Your task to perform on an android device: change alarm snooze length Image 0: 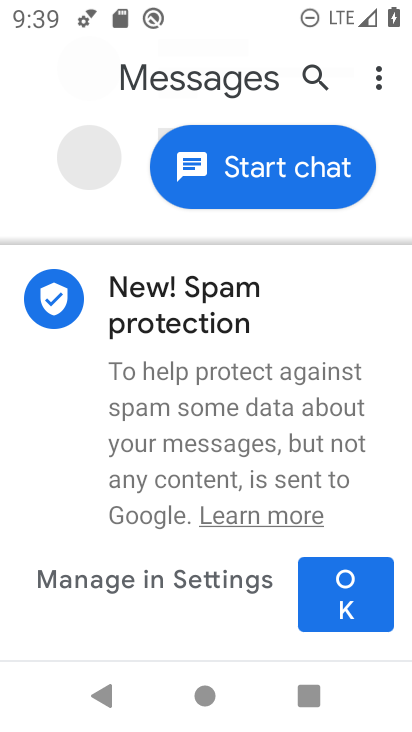
Step 0: press home button
Your task to perform on an android device: change alarm snooze length Image 1: 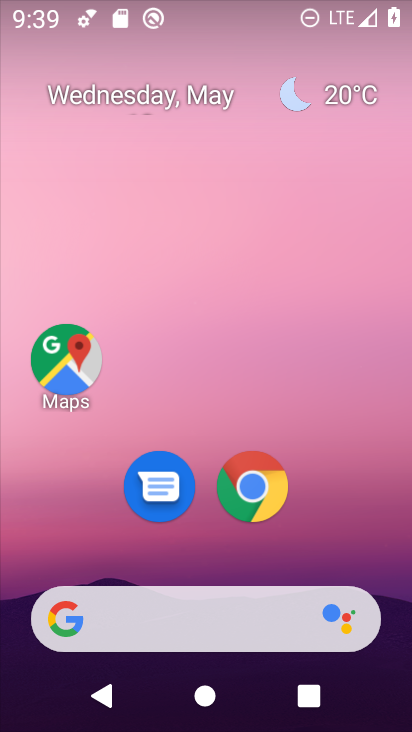
Step 1: drag from (397, 603) to (334, 25)
Your task to perform on an android device: change alarm snooze length Image 2: 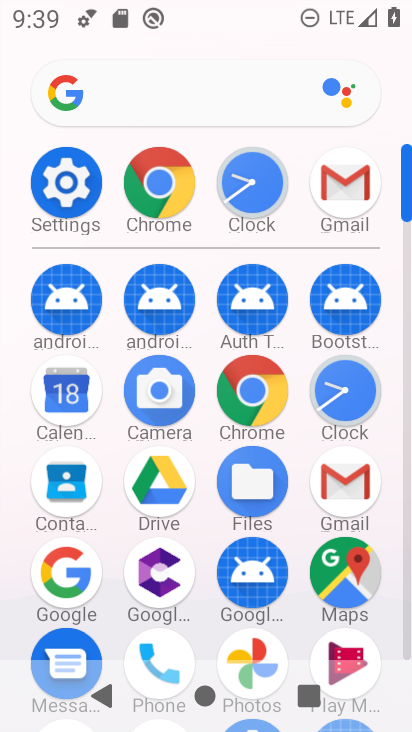
Step 2: click (411, 649)
Your task to perform on an android device: change alarm snooze length Image 3: 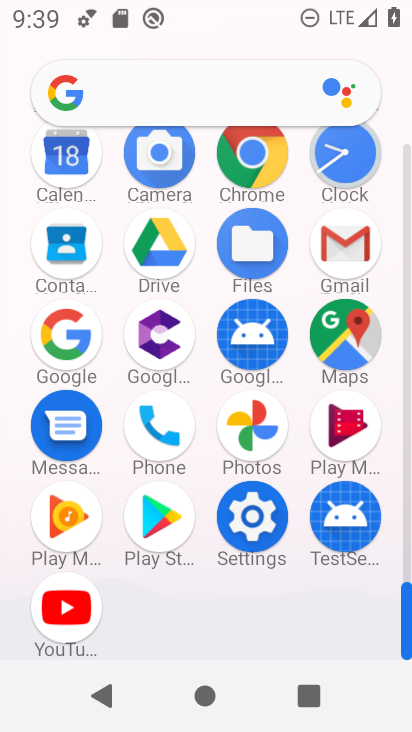
Step 3: click (348, 150)
Your task to perform on an android device: change alarm snooze length Image 4: 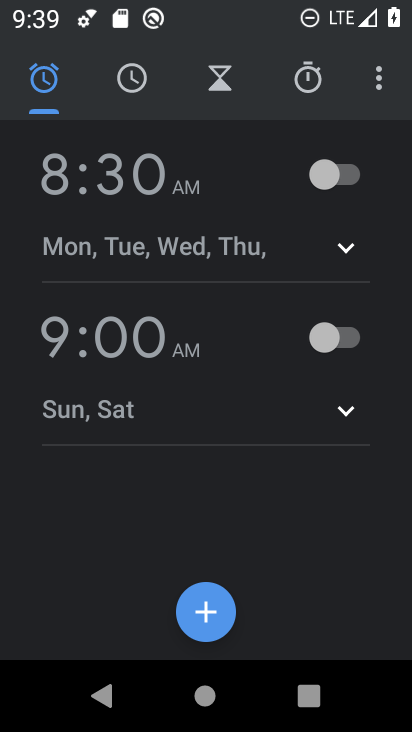
Step 4: click (371, 86)
Your task to perform on an android device: change alarm snooze length Image 5: 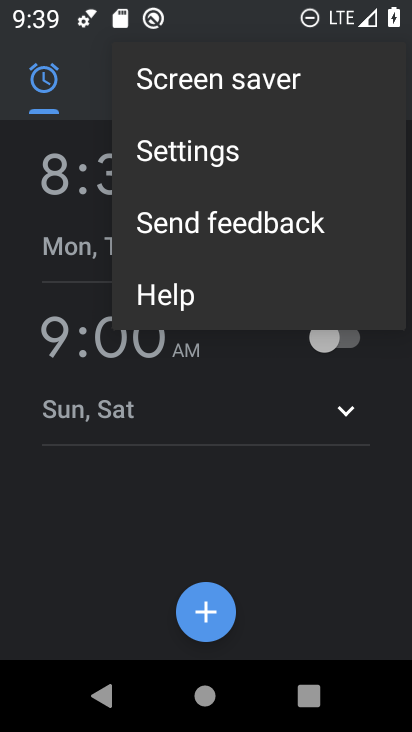
Step 5: click (183, 153)
Your task to perform on an android device: change alarm snooze length Image 6: 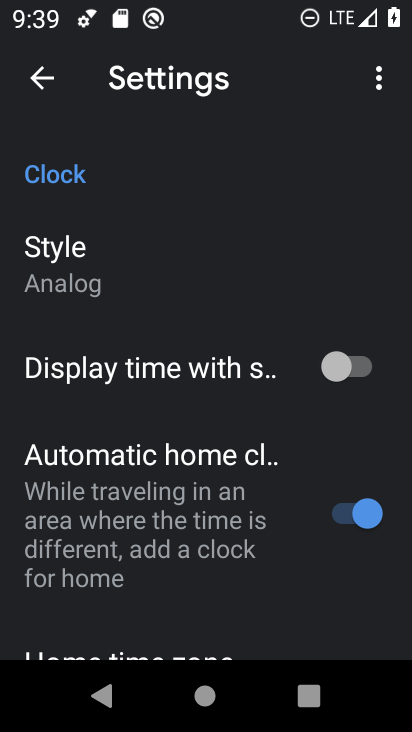
Step 6: drag from (301, 543) to (247, 40)
Your task to perform on an android device: change alarm snooze length Image 7: 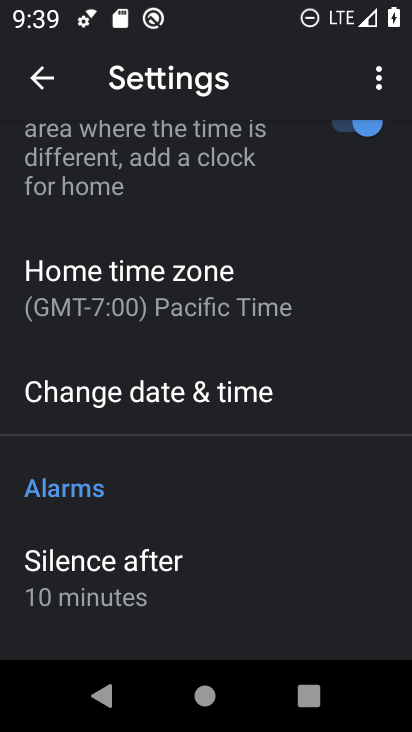
Step 7: drag from (251, 550) to (256, 127)
Your task to perform on an android device: change alarm snooze length Image 8: 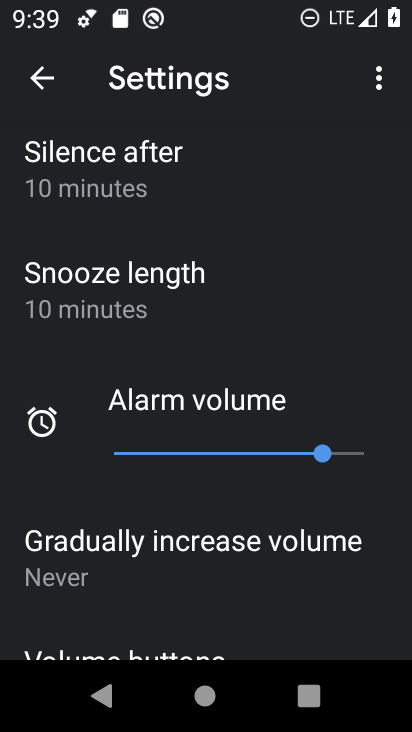
Step 8: click (83, 301)
Your task to perform on an android device: change alarm snooze length Image 9: 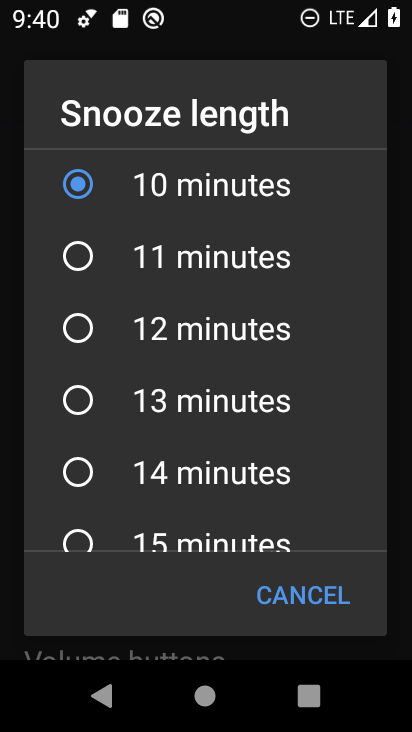
Step 9: click (81, 544)
Your task to perform on an android device: change alarm snooze length Image 10: 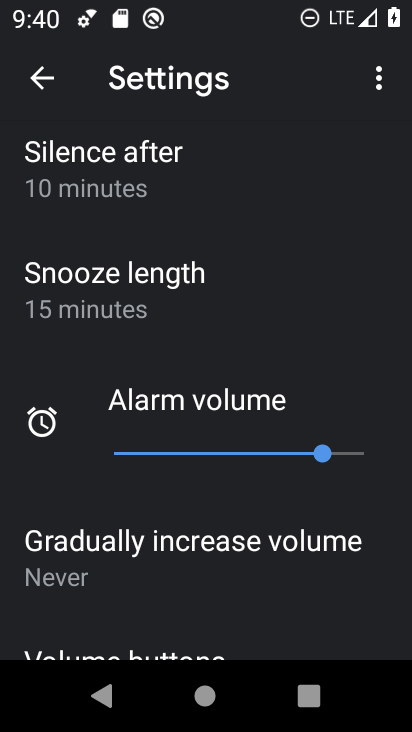
Step 10: task complete